Your task to perform on an android device: Open eBay Image 0: 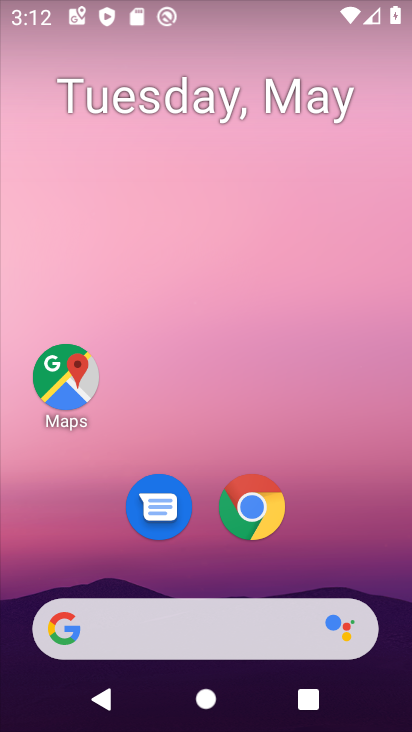
Step 0: click (251, 515)
Your task to perform on an android device: Open eBay Image 1: 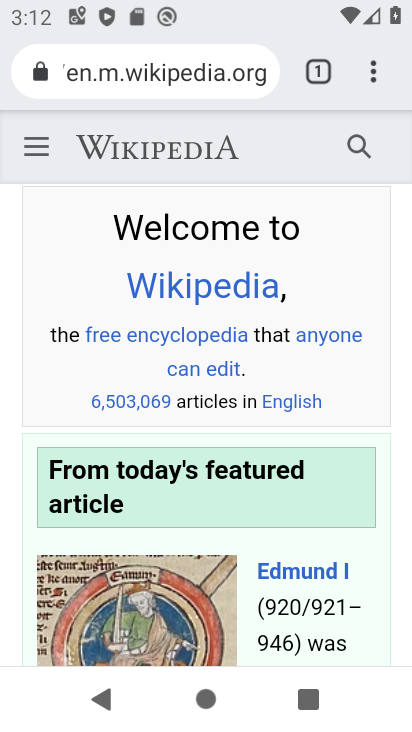
Step 1: click (175, 66)
Your task to perform on an android device: Open eBay Image 2: 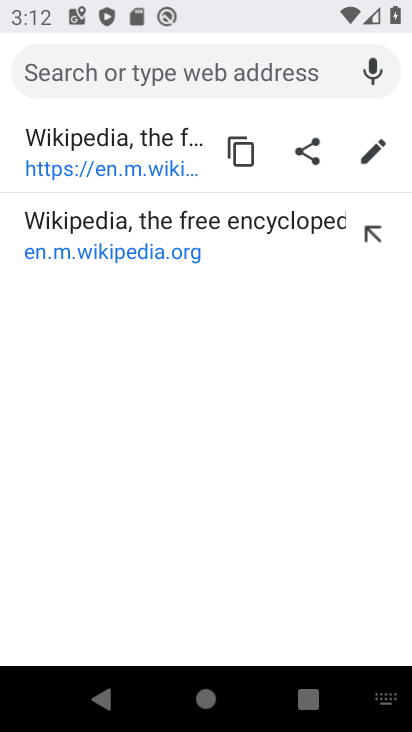
Step 2: type "ebay"
Your task to perform on an android device: Open eBay Image 3: 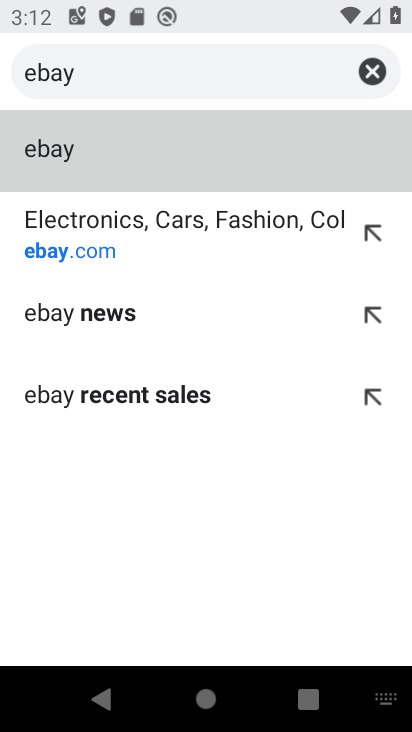
Step 3: click (89, 153)
Your task to perform on an android device: Open eBay Image 4: 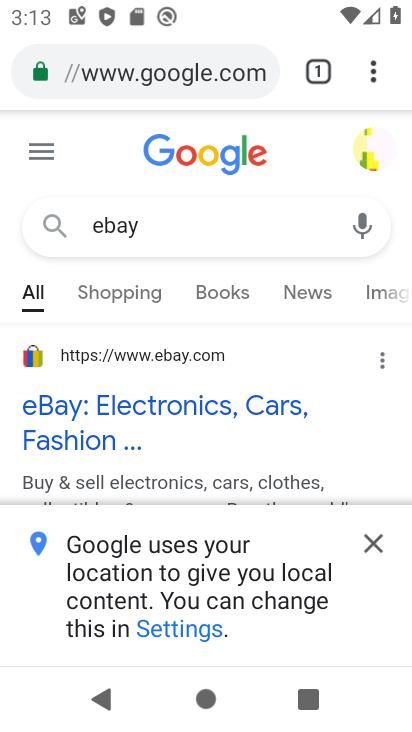
Step 4: click (62, 409)
Your task to perform on an android device: Open eBay Image 5: 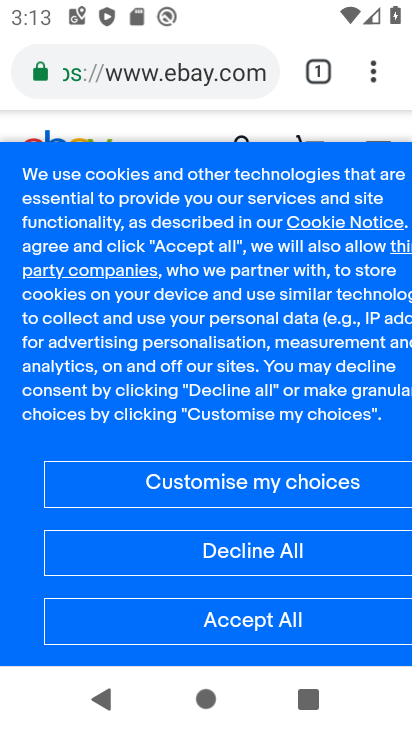
Step 5: task complete